Your task to perform on an android device: Open my contact list Image 0: 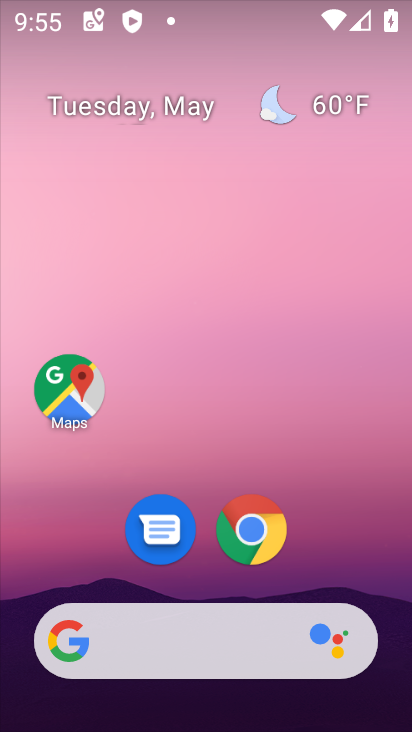
Step 0: drag from (197, 605) to (193, 207)
Your task to perform on an android device: Open my contact list Image 1: 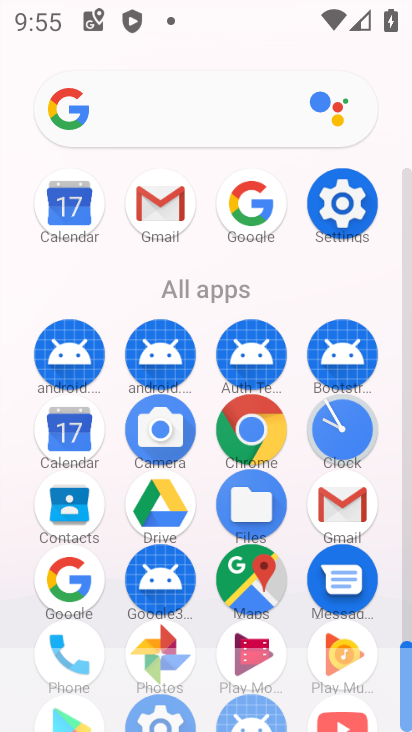
Step 1: drag from (209, 645) to (223, 293)
Your task to perform on an android device: Open my contact list Image 2: 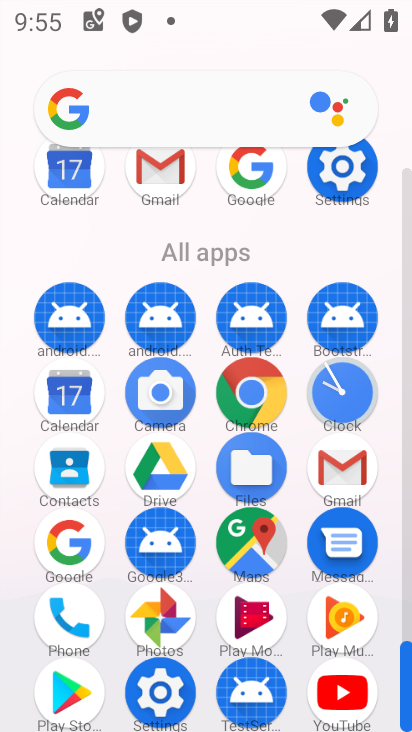
Step 2: drag from (196, 664) to (198, 477)
Your task to perform on an android device: Open my contact list Image 3: 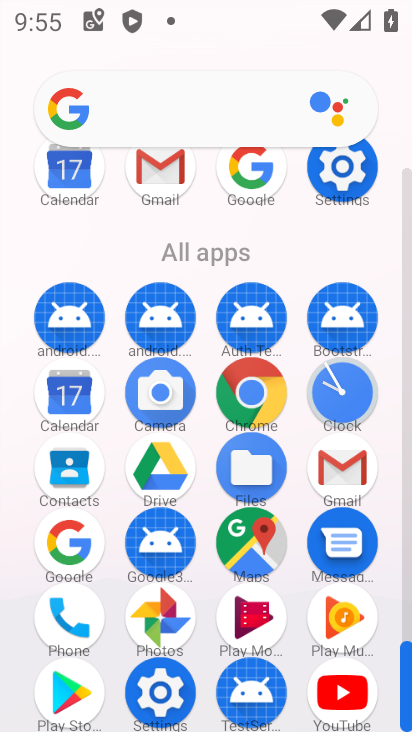
Step 3: click (78, 463)
Your task to perform on an android device: Open my contact list Image 4: 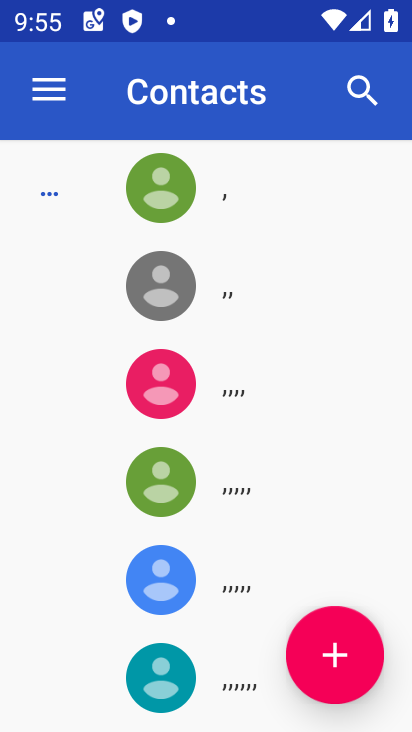
Step 4: task complete